Your task to perform on an android device: change notification settings in the gmail app Image 0: 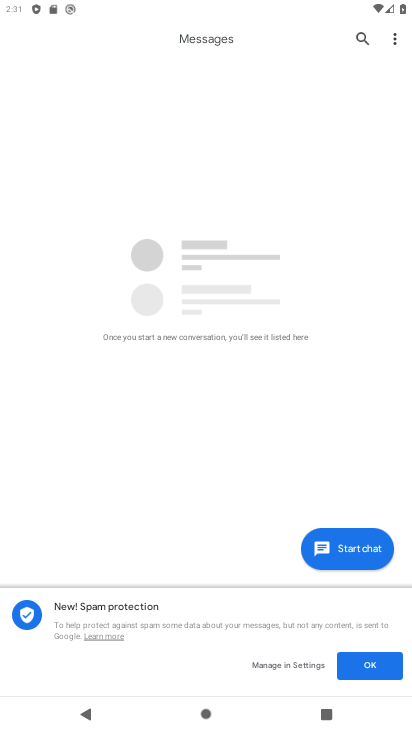
Step 0: press home button
Your task to perform on an android device: change notification settings in the gmail app Image 1: 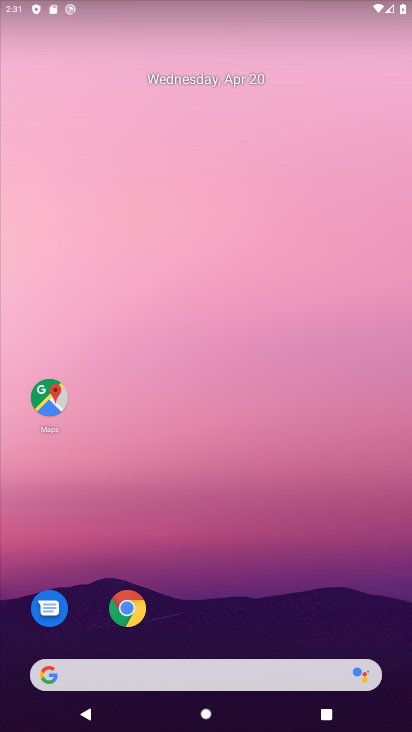
Step 1: drag from (332, 557) to (325, 130)
Your task to perform on an android device: change notification settings in the gmail app Image 2: 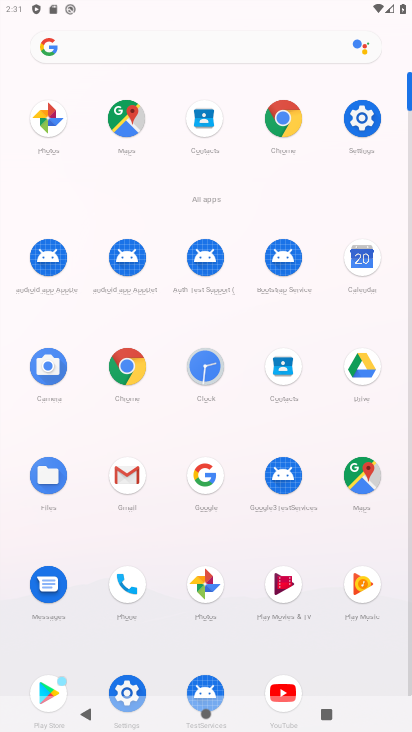
Step 2: drag from (206, 484) to (259, 225)
Your task to perform on an android device: change notification settings in the gmail app Image 3: 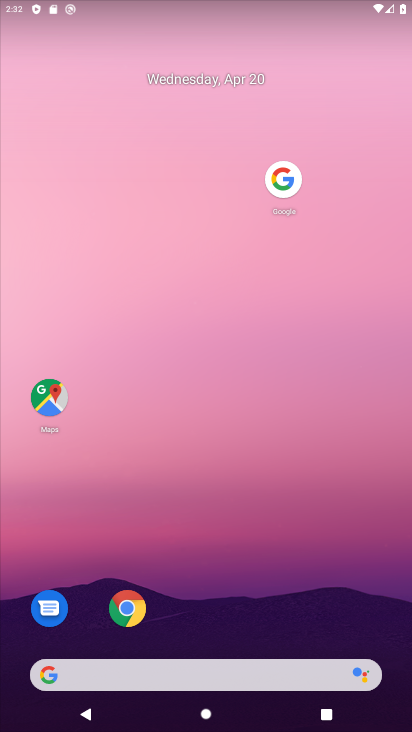
Step 3: drag from (234, 612) to (239, 86)
Your task to perform on an android device: change notification settings in the gmail app Image 4: 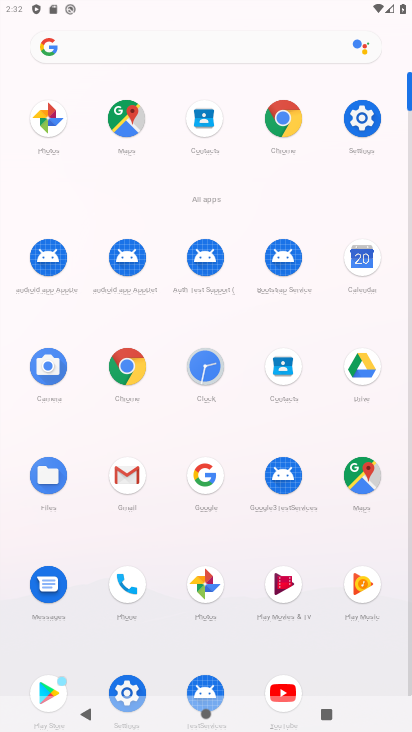
Step 4: click (125, 476)
Your task to perform on an android device: change notification settings in the gmail app Image 5: 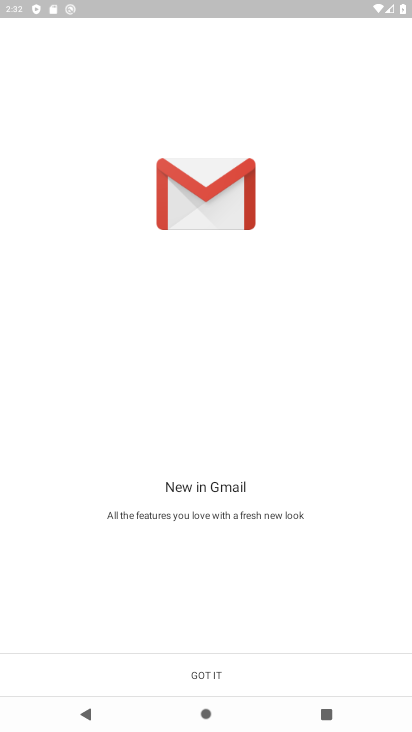
Step 5: click (238, 664)
Your task to perform on an android device: change notification settings in the gmail app Image 6: 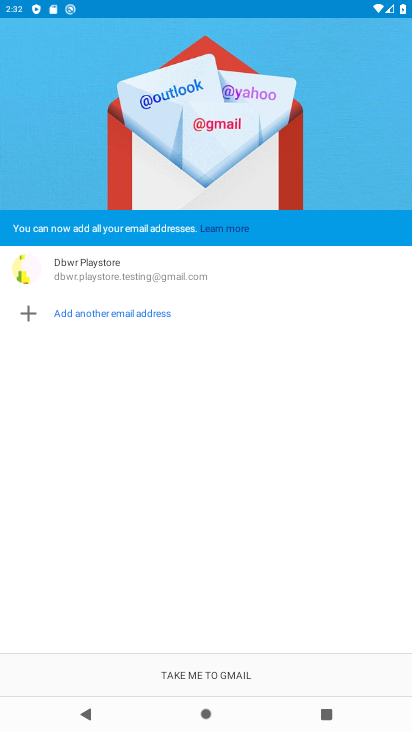
Step 6: click (296, 677)
Your task to perform on an android device: change notification settings in the gmail app Image 7: 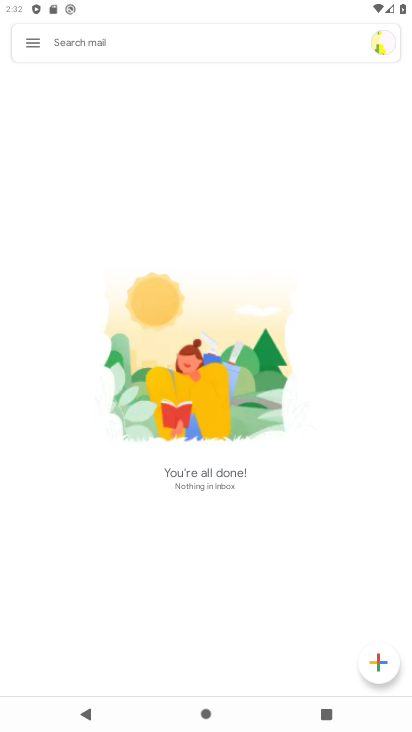
Step 7: click (28, 35)
Your task to perform on an android device: change notification settings in the gmail app Image 8: 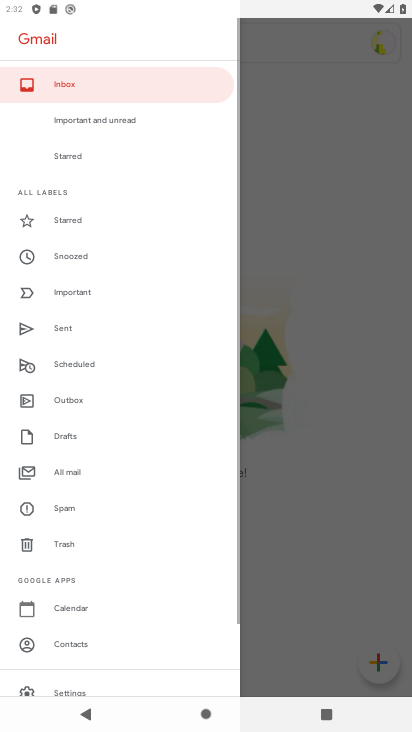
Step 8: drag from (93, 601) to (178, 178)
Your task to perform on an android device: change notification settings in the gmail app Image 9: 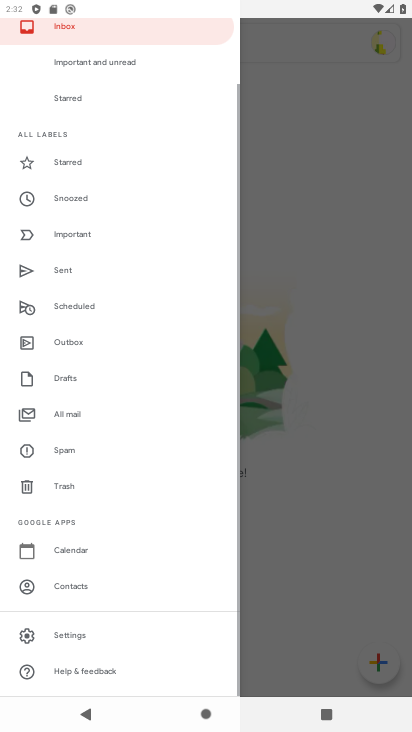
Step 9: click (77, 632)
Your task to perform on an android device: change notification settings in the gmail app Image 10: 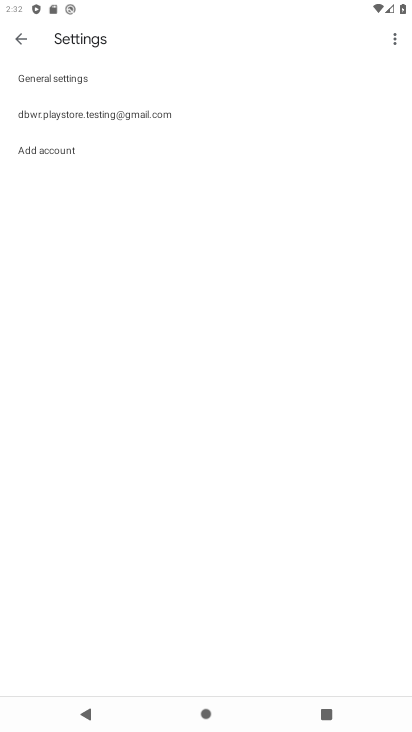
Step 10: click (59, 113)
Your task to perform on an android device: change notification settings in the gmail app Image 11: 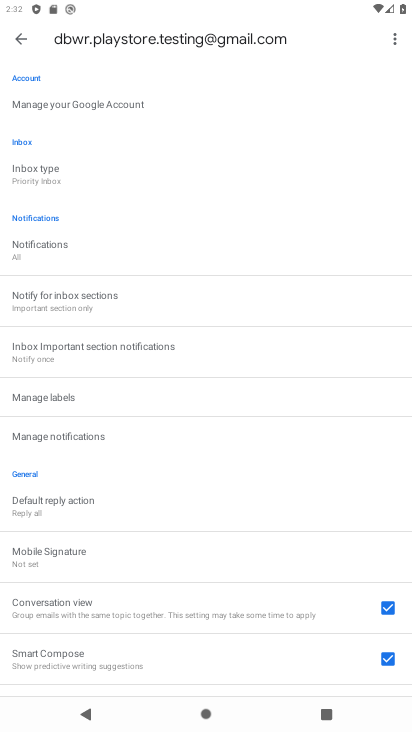
Step 11: click (90, 433)
Your task to perform on an android device: change notification settings in the gmail app Image 12: 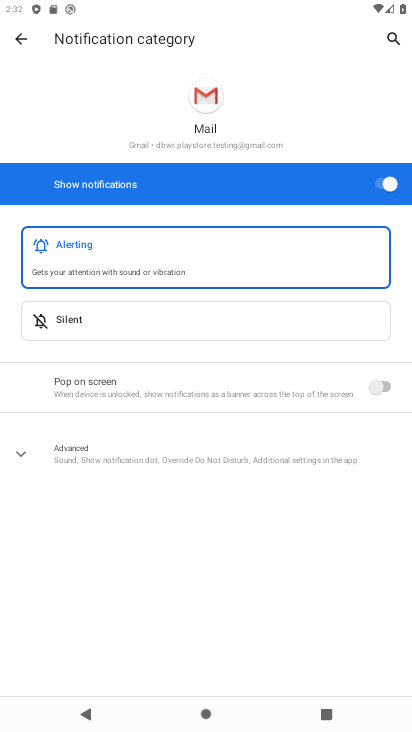
Step 12: click (399, 179)
Your task to perform on an android device: change notification settings in the gmail app Image 13: 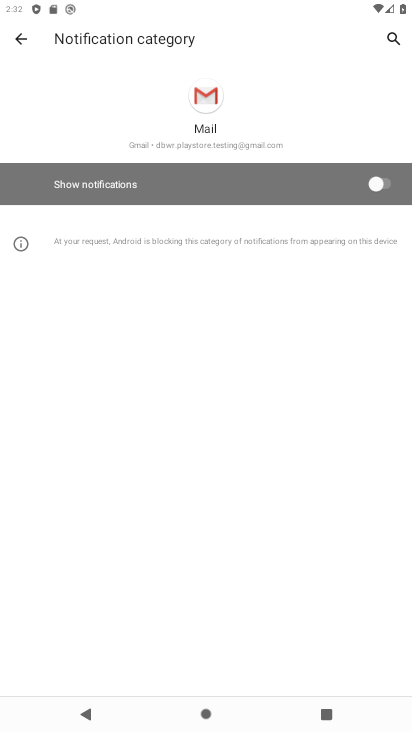
Step 13: task complete